Your task to perform on an android device: Go to Maps Image 0: 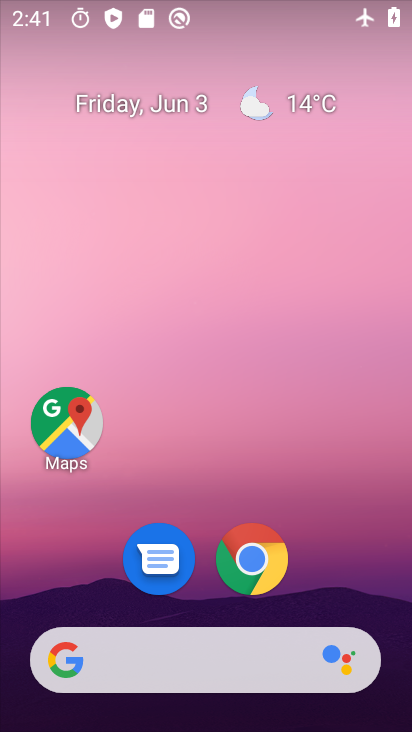
Step 0: click (202, 476)
Your task to perform on an android device: Go to Maps Image 1: 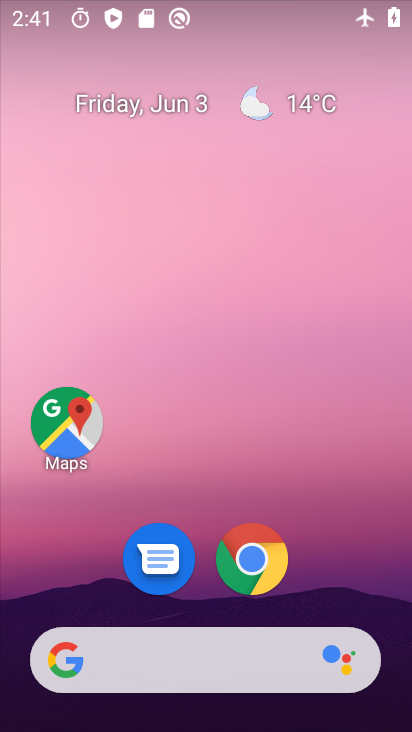
Step 1: click (65, 418)
Your task to perform on an android device: Go to Maps Image 2: 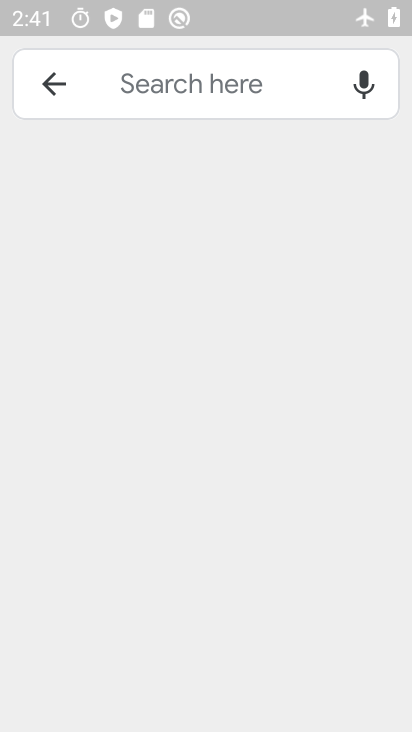
Step 2: task complete